Your task to perform on an android device: Clear all items from cart on newegg.com. Add logitech g903 to the cart on newegg.com Image 0: 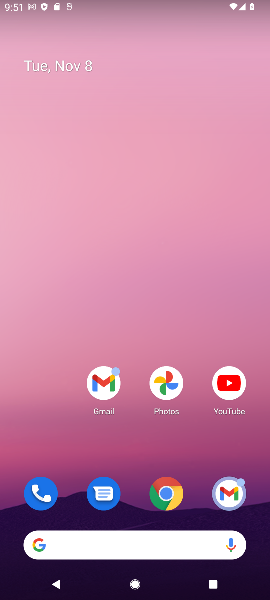
Step 0: click (172, 494)
Your task to perform on an android device: Clear all items from cart on newegg.com. Add logitech g903 to the cart on newegg.com Image 1: 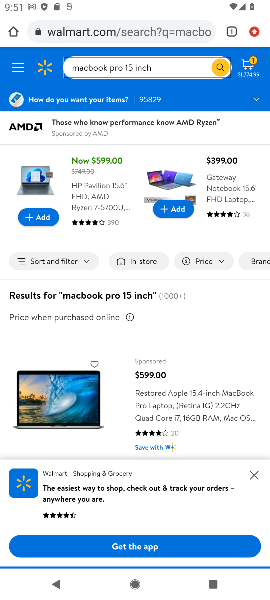
Step 1: click (126, 33)
Your task to perform on an android device: Clear all items from cart on newegg.com. Add logitech g903 to the cart on newegg.com Image 2: 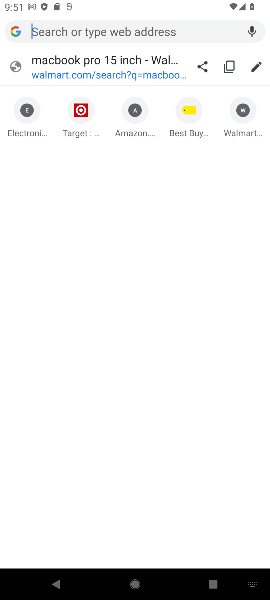
Step 2: type "newegg.com"
Your task to perform on an android device: Clear all items from cart on newegg.com. Add logitech g903 to the cart on newegg.com Image 3: 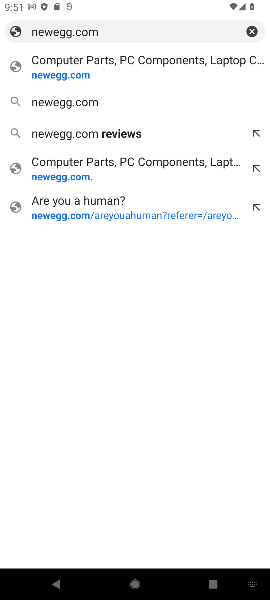
Step 3: click (60, 72)
Your task to perform on an android device: Clear all items from cart on newegg.com. Add logitech g903 to the cart on newegg.com Image 4: 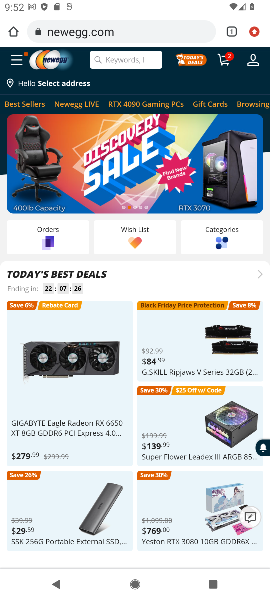
Step 4: click (227, 52)
Your task to perform on an android device: Clear all items from cart on newegg.com. Add logitech g903 to the cart on newegg.com Image 5: 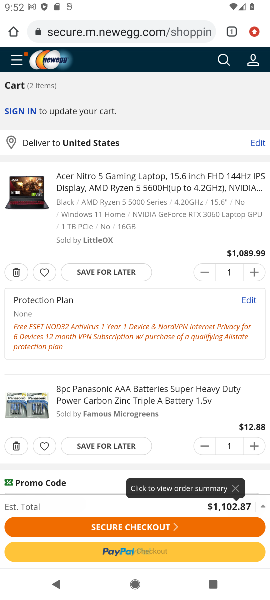
Step 5: click (15, 277)
Your task to perform on an android device: Clear all items from cart on newegg.com. Add logitech g903 to the cart on newegg.com Image 6: 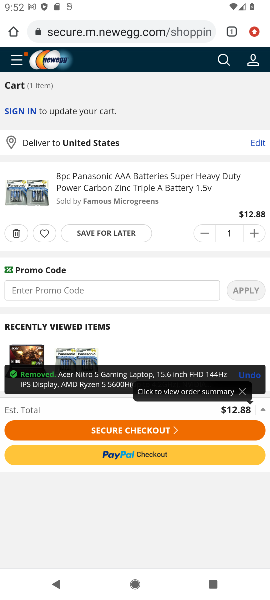
Step 6: click (14, 235)
Your task to perform on an android device: Clear all items from cart on newegg.com. Add logitech g903 to the cart on newegg.com Image 7: 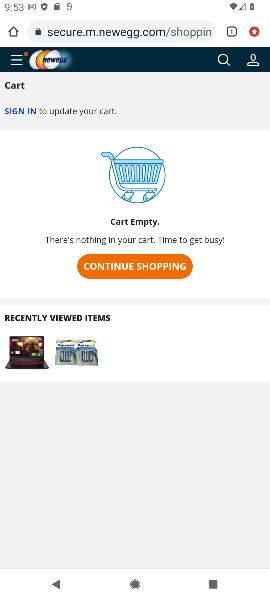
Step 7: click (219, 62)
Your task to perform on an android device: Clear all items from cart on newegg.com. Add logitech g903 to the cart on newegg.com Image 8: 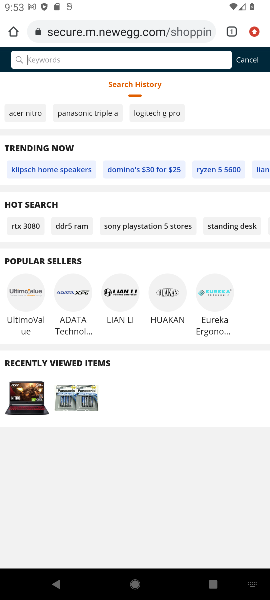
Step 8: type " logitech g903"
Your task to perform on an android device: Clear all items from cart on newegg.com. Add logitech g903 to the cart on newegg.com Image 9: 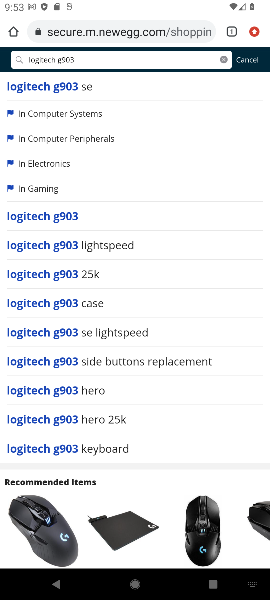
Step 9: click (47, 217)
Your task to perform on an android device: Clear all items from cart on newegg.com. Add logitech g903 to the cart on newegg.com Image 10: 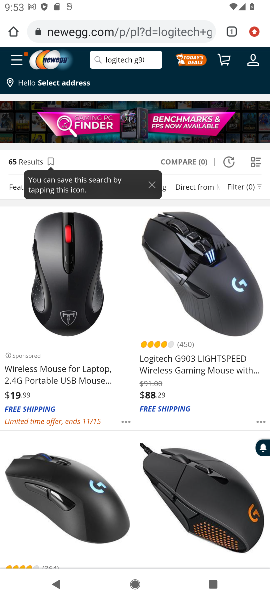
Step 10: click (220, 322)
Your task to perform on an android device: Clear all items from cart on newegg.com. Add logitech g903 to the cart on newegg.com Image 11: 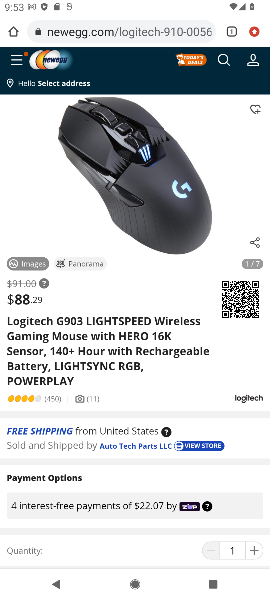
Step 11: click (117, 552)
Your task to perform on an android device: Clear all items from cart on newegg.com. Add logitech g903 to the cart on newegg.com Image 12: 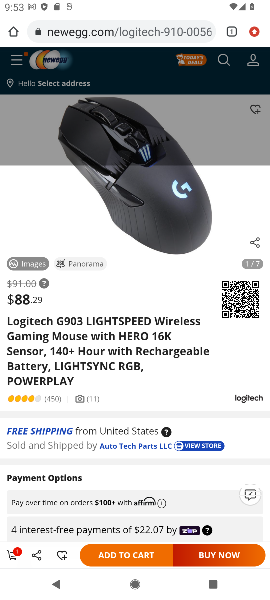
Step 12: task complete